Your task to perform on an android device: Do I have any events today? Image 0: 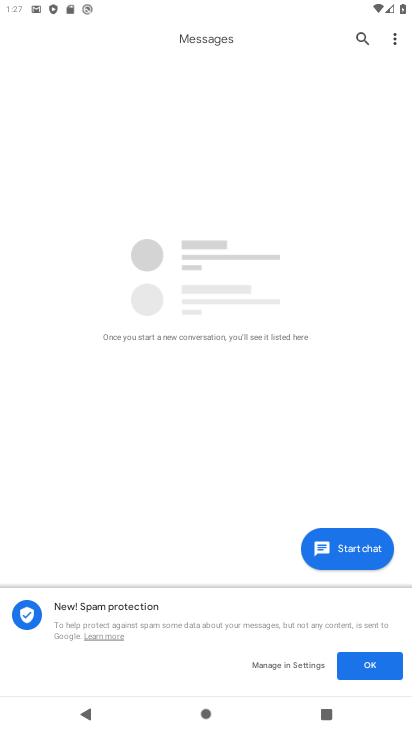
Step 0: press home button
Your task to perform on an android device: Do I have any events today? Image 1: 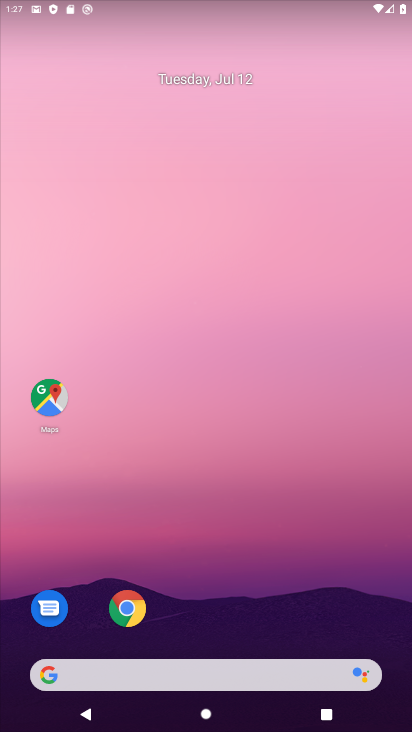
Step 1: drag from (276, 640) to (235, 278)
Your task to perform on an android device: Do I have any events today? Image 2: 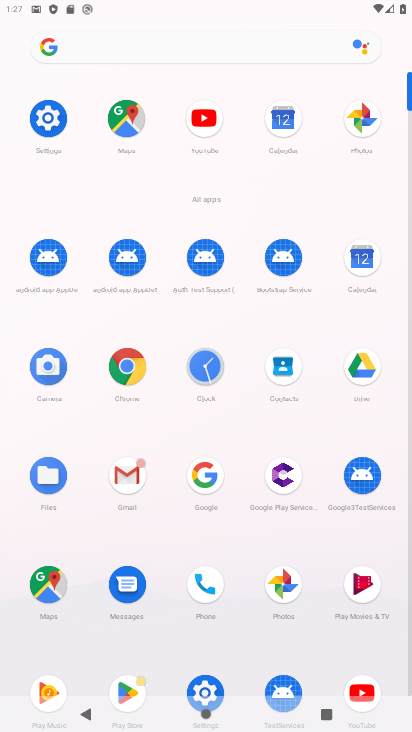
Step 2: click (284, 123)
Your task to perform on an android device: Do I have any events today? Image 3: 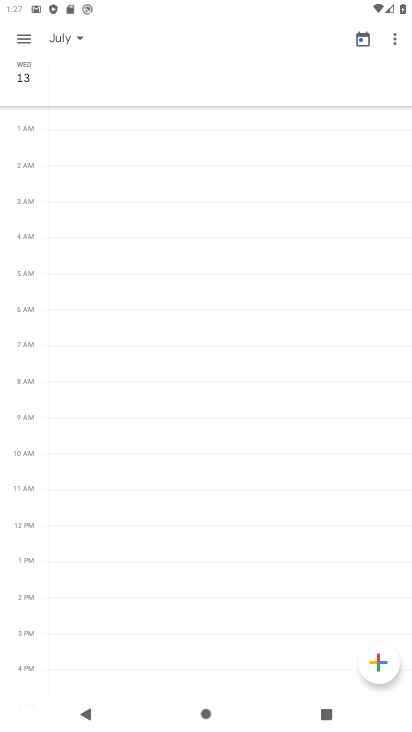
Step 3: click (22, 48)
Your task to perform on an android device: Do I have any events today? Image 4: 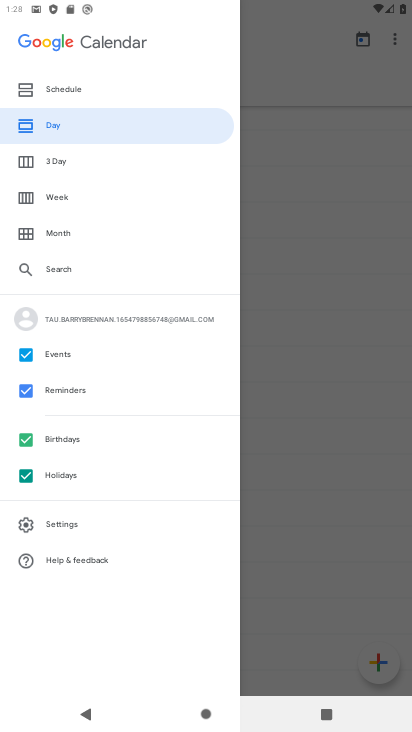
Step 4: click (21, 474)
Your task to perform on an android device: Do I have any events today? Image 5: 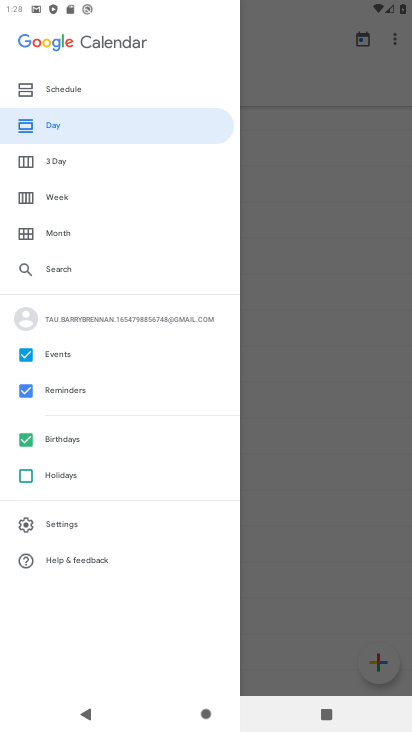
Step 5: click (24, 433)
Your task to perform on an android device: Do I have any events today? Image 6: 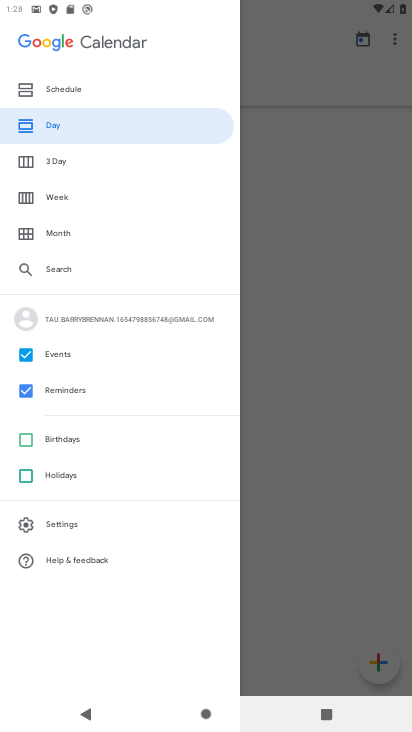
Step 6: click (22, 391)
Your task to perform on an android device: Do I have any events today? Image 7: 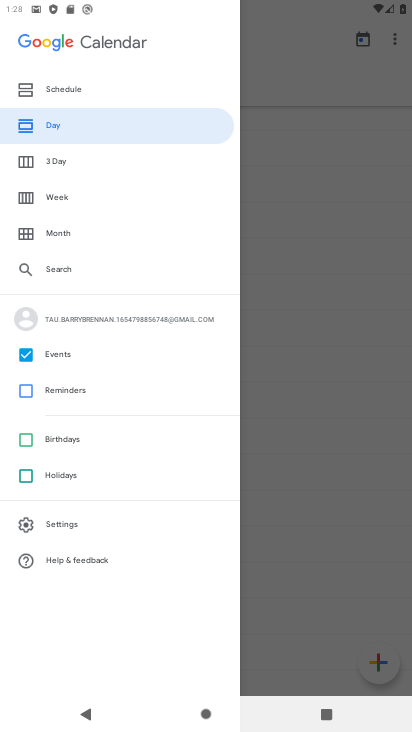
Step 7: click (269, 336)
Your task to perform on an android device: Do I have any events today? Image 8: 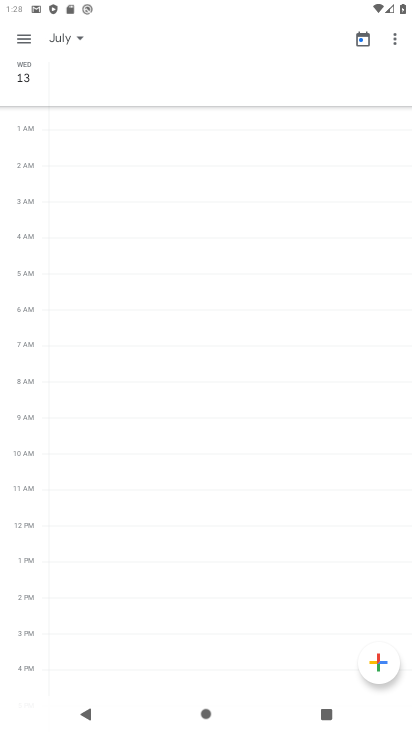
Step 8: task complete